Your task to perform on an android device: clear all cookies in the chrome app Image 0: 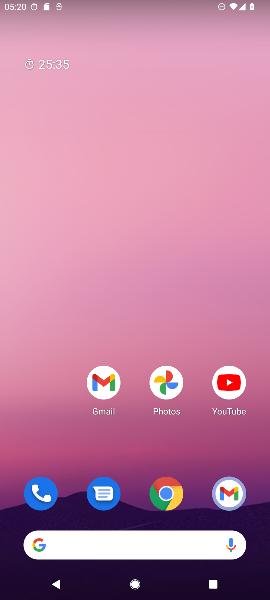
Step 0: press home button
Your task to perform on an android device: clear all cookies in the chrome app Image 1: 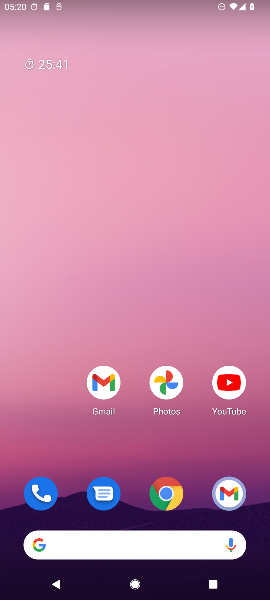
Step 1: drag from (68, 450) to (73, 191)
Your task to perform on an android device: clear all cookies in the chrome app Image 2: 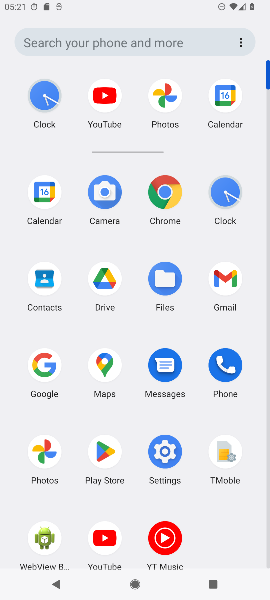
Step 2: click (167, 189)
Your task to perform on an android device: clear all cookies in the chrome app Image 3: 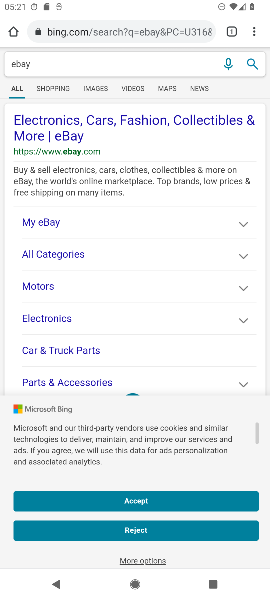
Step 3: click (253, 30)
Your task to perform on an android device: clear all cookies in the chrome app Image 4: 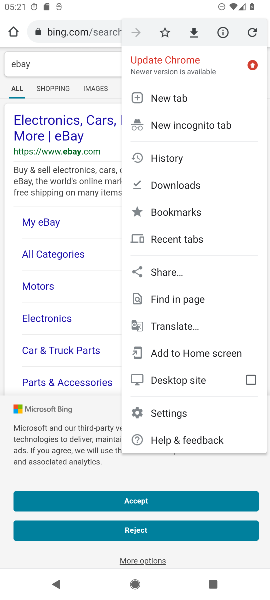
Step 4: click (178, 413)
Your task to perform on an android device: clear all cookies in the chrome app Image 5: 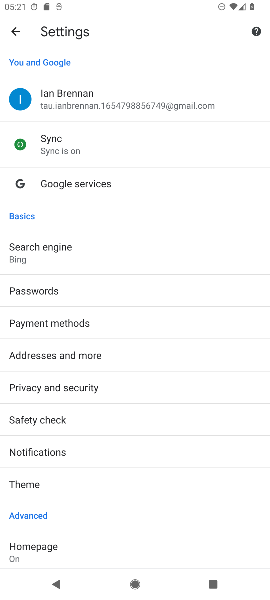
Step 5: click (135, 387)
Your task to perform on an android device: clear all cookies in the chrome app Image 6: 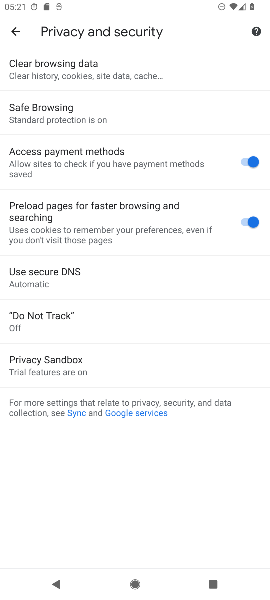
Step 6: click (122, 69)
Your task to perform on an android device: clear all cookies in the chrome app Image 7: 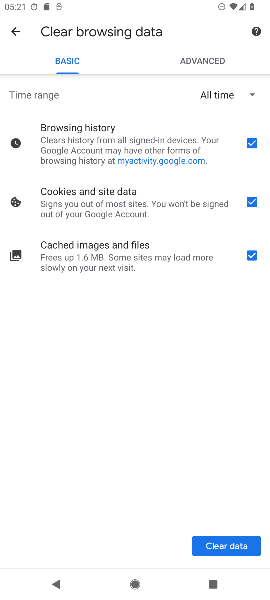
Step 7: click (220, 541)
Your task to perform on an android device: clear all cookies in the chrome app Image 8: 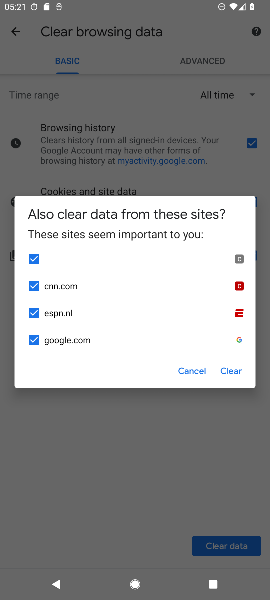
Step 8: click (226, 366)
Your task to perform on an android device: clear all cookies in the chrome app Image 9: 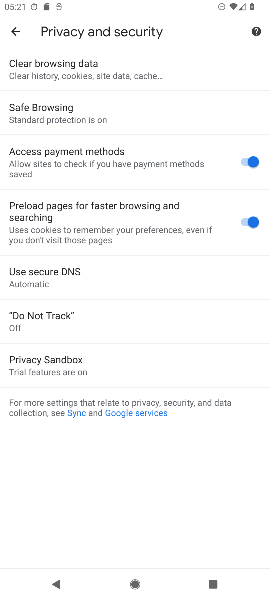
Step 9: task complete